Your task to perform on an android device: star an email in the gmail app Image 0: 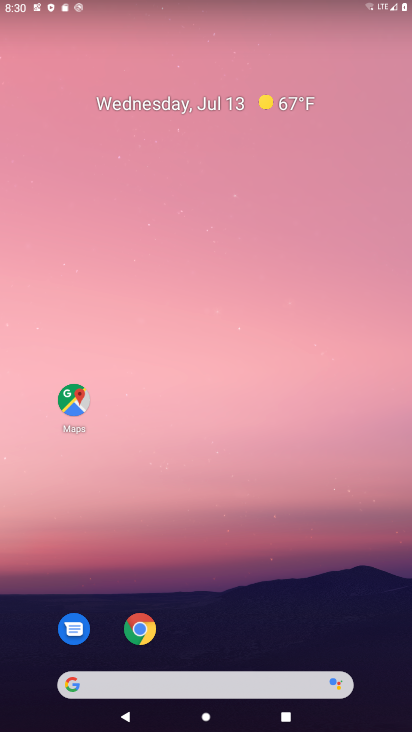
Step 0: drag from (193, 495) to (213, 75)
Your task to perform on an android device: star an email in the gmail app Image 1: 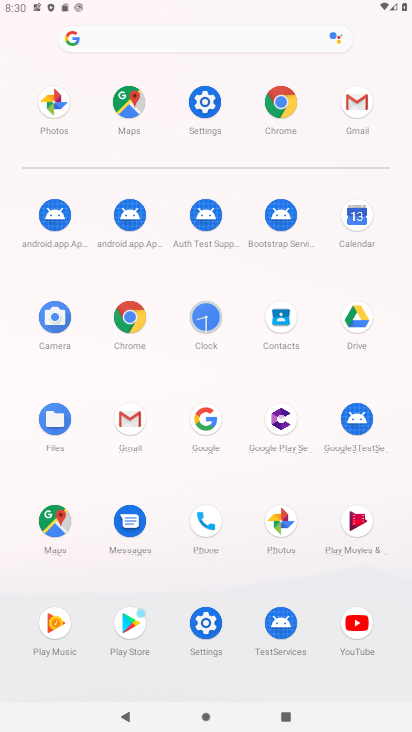
Step 1: click (119, 415)
Your task to perform on an android device: star an email in the gmail app Image 2: 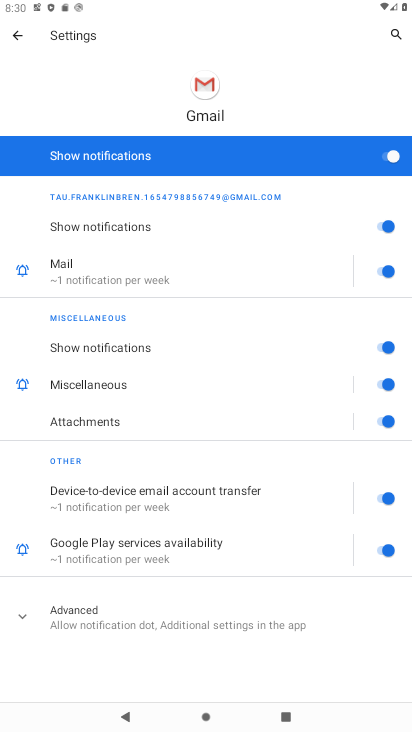
Step 2: click (12, 32)
Your task to perform on an android device: star an email in the gmail app Image 3: 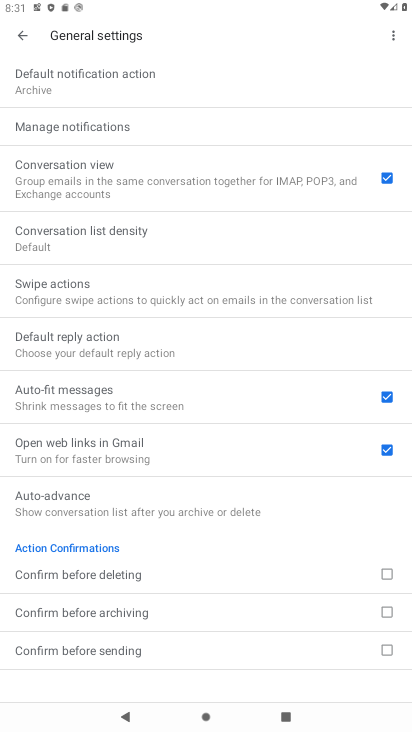
Step 3: click (17, 33)
Your task to perform on an android device: star an email in the gmail app Image 4: 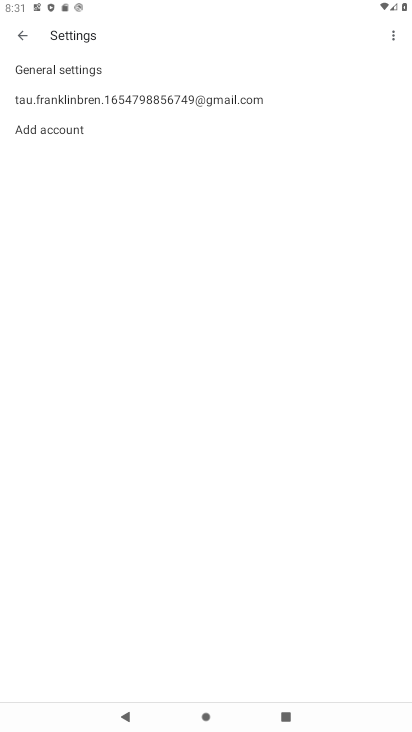
Step 4: click (29, 31)
Your task to perform on an android device: star an email in the gmail app Image 5: 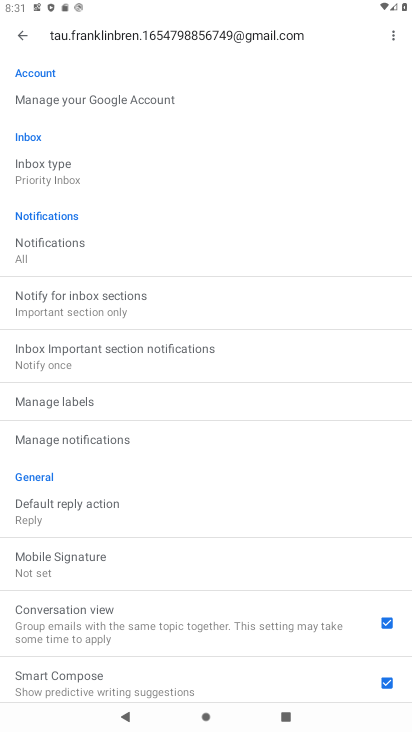
Step 5: click (20, 22)
Your task to perform on an android device: star an email in the gmail app Image 6: 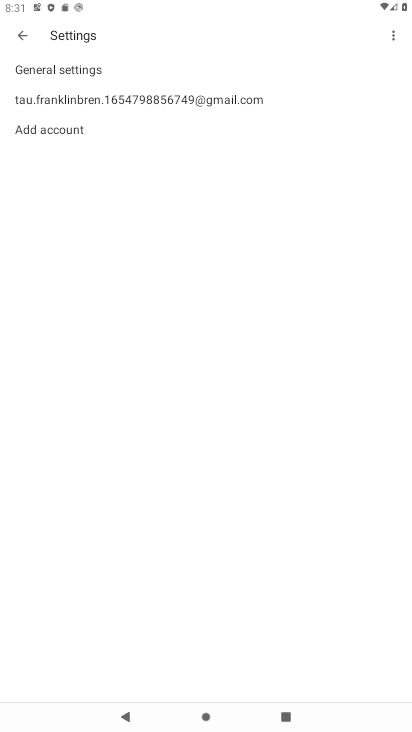
Step 6: click (17, 37)
Your task to perform on an android device: star an email in the gmail app Image 7: 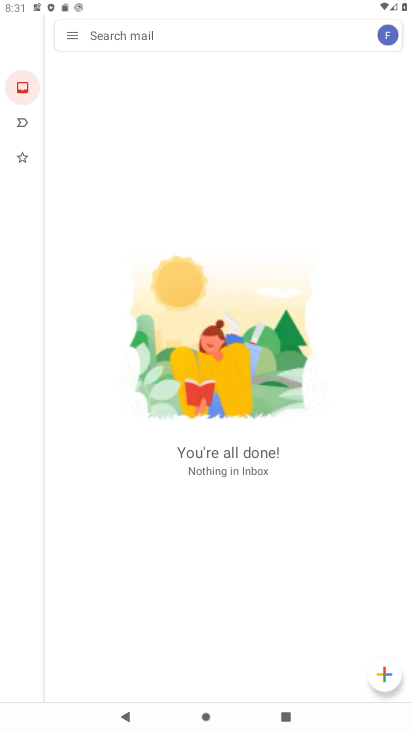
Step 7: task complete